Your task to perform on an android device: turn off javascript in the chrome app Image 0: 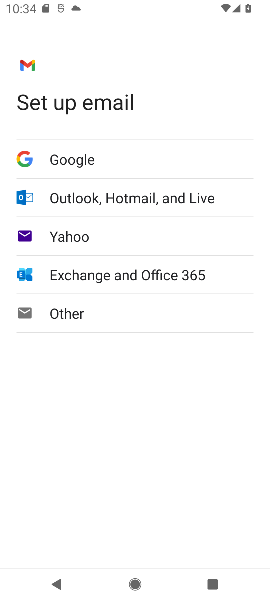
Step 0: press home button
Your task to perform on an android device: turn off javascript in the chrome app Image 1: 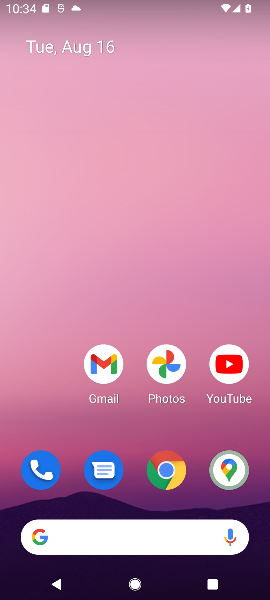
Step 1: click (165, 469)
Your task to perform on an android device: turn off javascript in the chrome app Image 2: 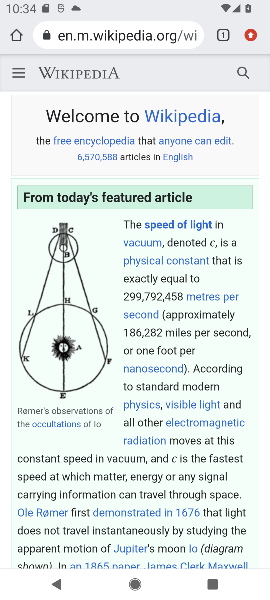
Step 2: press back button
Your task to perform on an android device: turn off javascript in the chrome app Image 3: 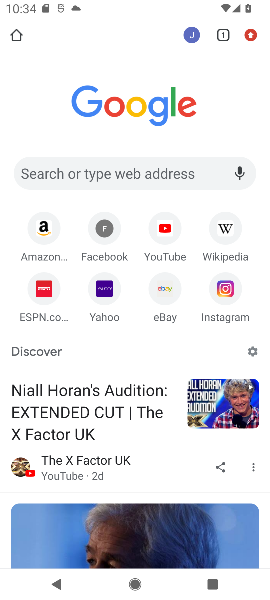
Step 3: click (247, 34)
Your task to perform on an android device: turn off javascript in the chrome app Image 4: 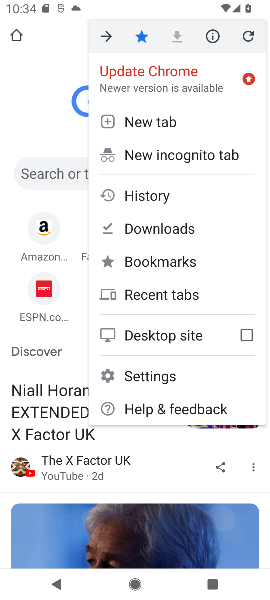
Step 4: click (169, 372)
Your task to perform on an android device: turn off javascript in the chrome app Image 5: 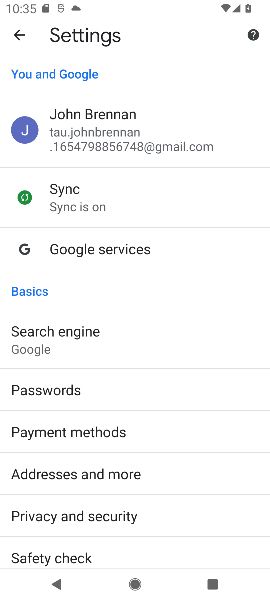
Step 5: drag from (165, 509) to (186, 226)
Your task to perform on an android device: turn off javascript in the chrome app Image 6: 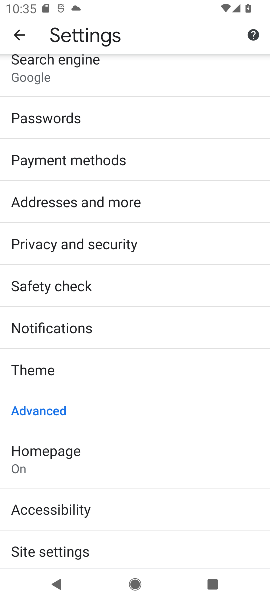
Step 6: click (78, 549)
Your task to perform on an android device: turn off javascript in the chrome app Image 7: 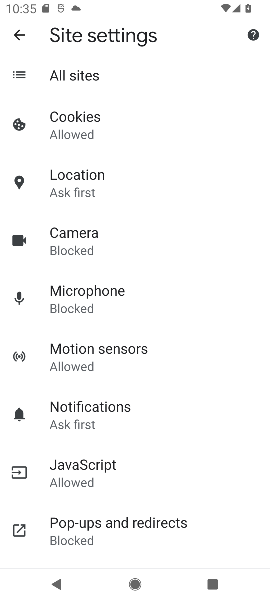
Step 7: click (92, 463)
Your task to perform on an android device: turn off javascript in the chrome app Image 8: 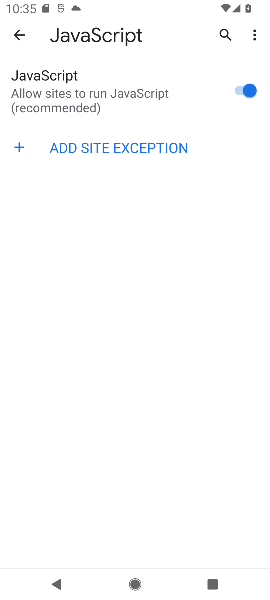
Step 8: click (248, 83)
Your task to perform on an android device: turn off javascript in the chrome app Image 9: 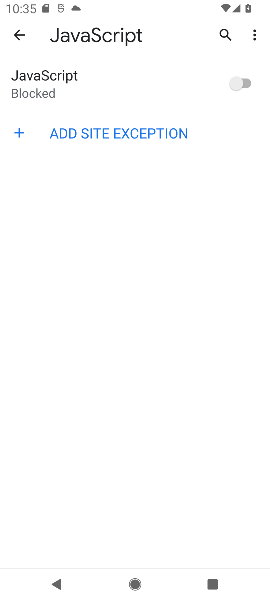
Step 9: task complete